Your task to perform on an android device: install app "Calculator" Image 0: 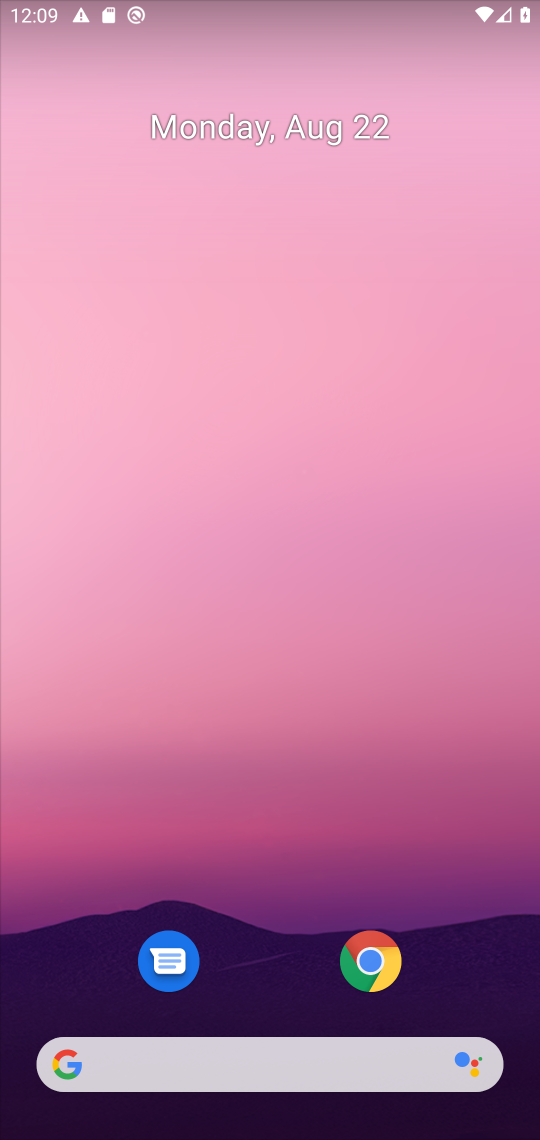
Step 0: drag from (462, 986) to (422, 132)
Your task to perform on an android device: install app "Calculator" Image 1: 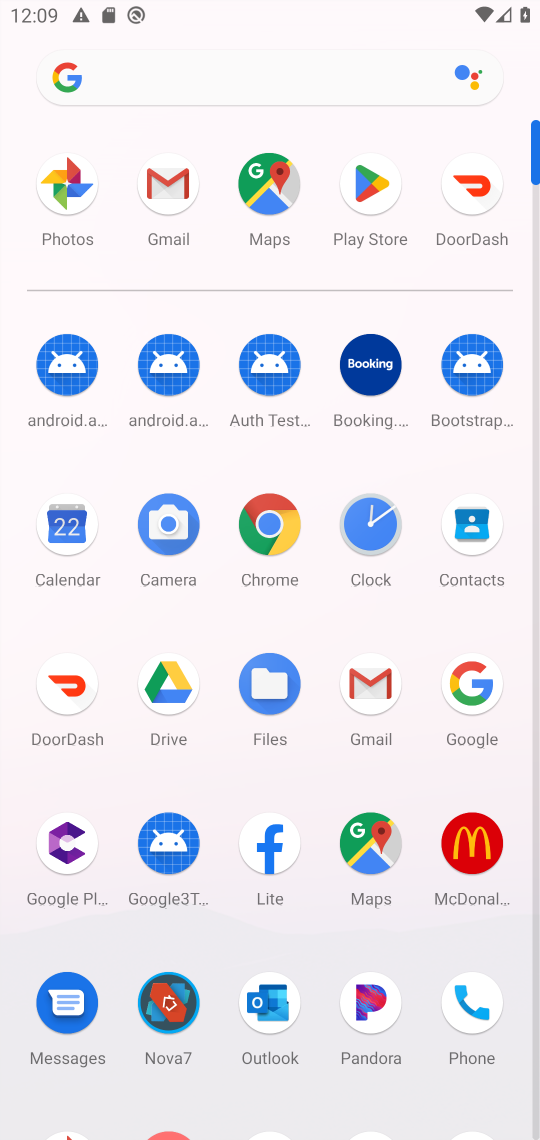
Step 1: click (353, 198)
Your task to perform on an android device: install app "Calculator" Image 2: 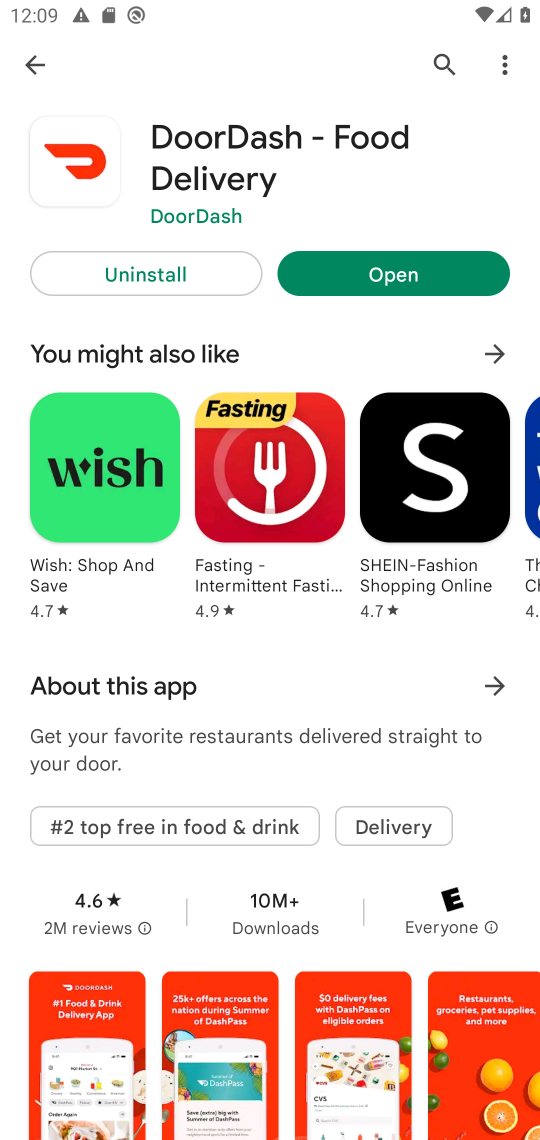
Step 2: press back button
Your task to perform on an android device: install app "Calculator" Image 3: 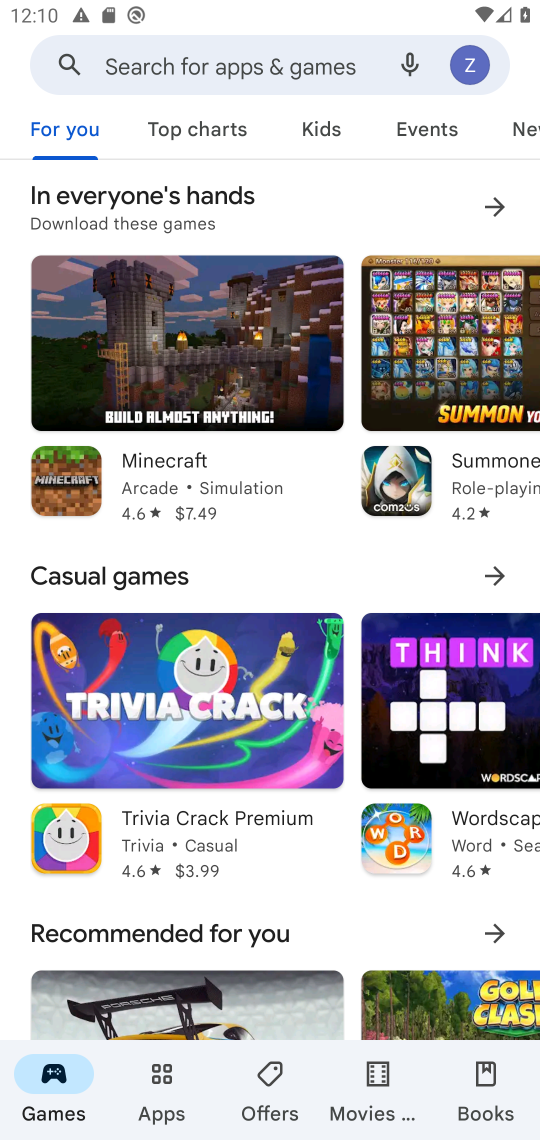
Step 3: click (202, 74)
Your task to perform on an android device: install app "Calculator" Image 4: 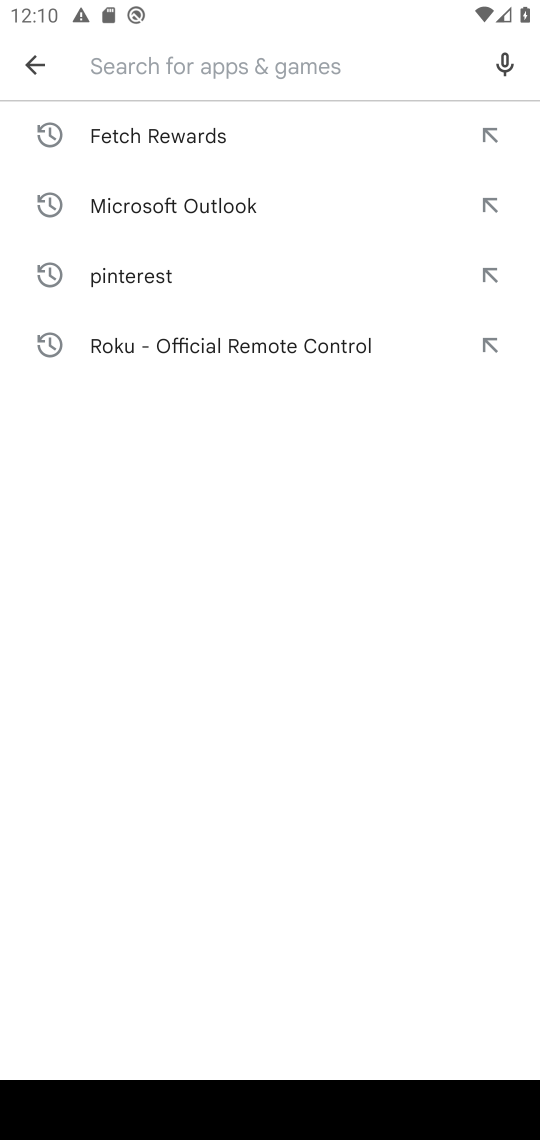
Step 4: press enter
Your task to perform on an android device: install app "Calculator" Image 5: 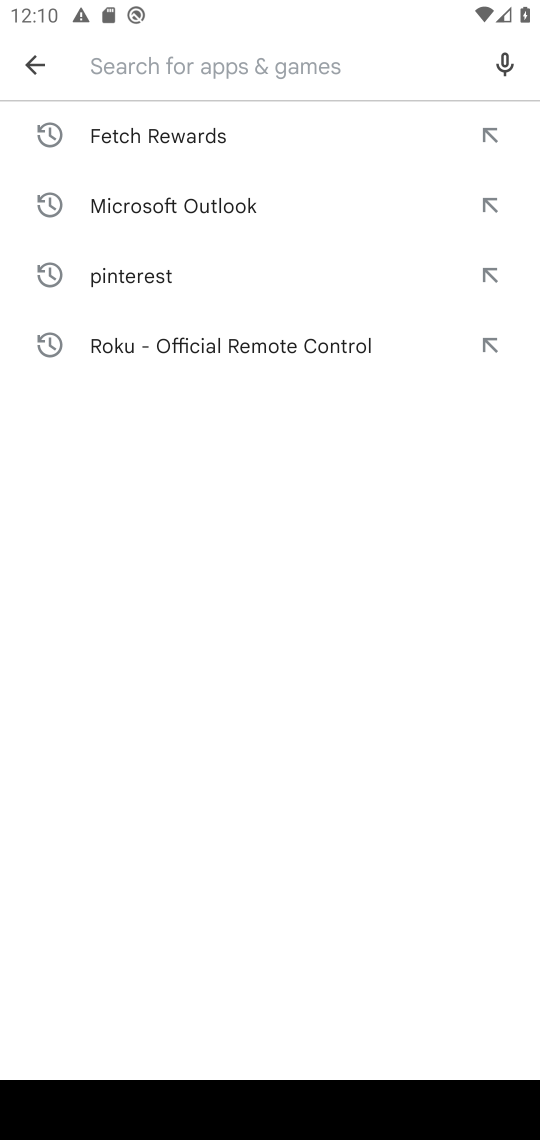
Step 5: type "calculator"
Your task to perform on an android device: install app "Calculator" Image 6: 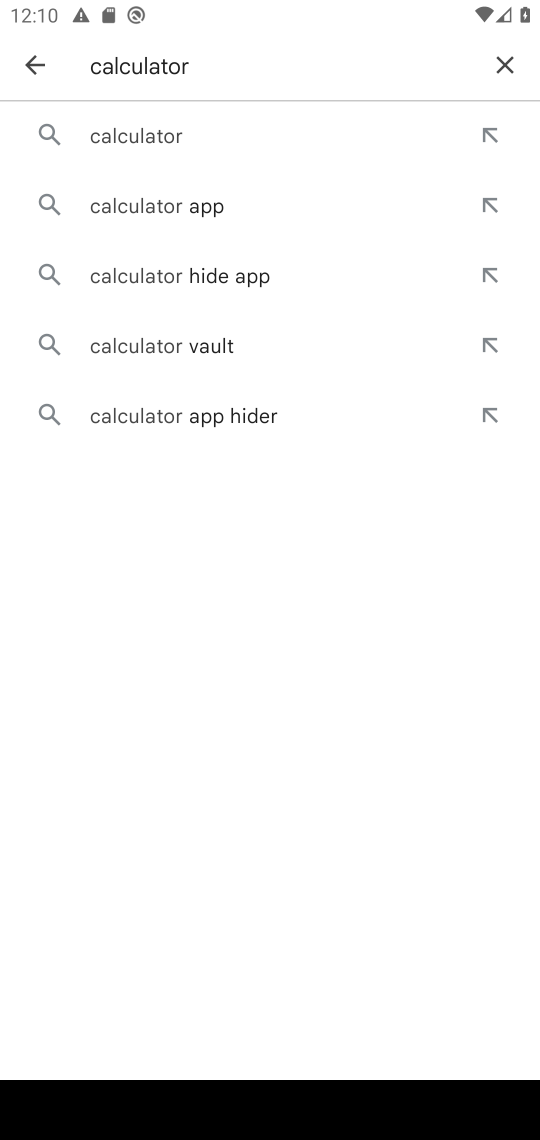
Step 6: click (175, 128)
Your task to perform on an android device: install app "Calculator" Image 7: 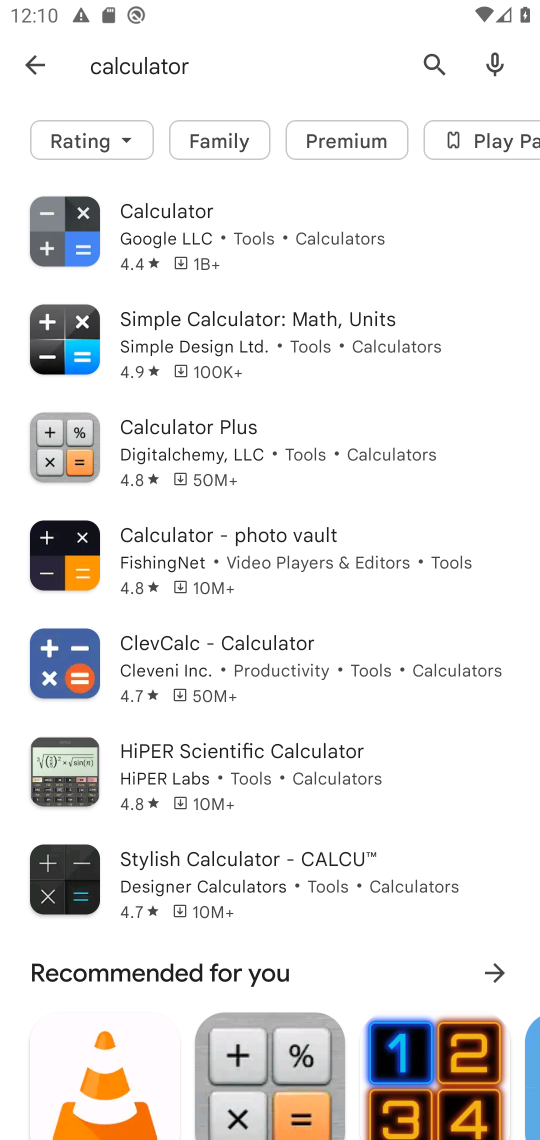
Step 7: click (190, 248)
Your task to perform on an android device: install app "Calculator" Image 8: 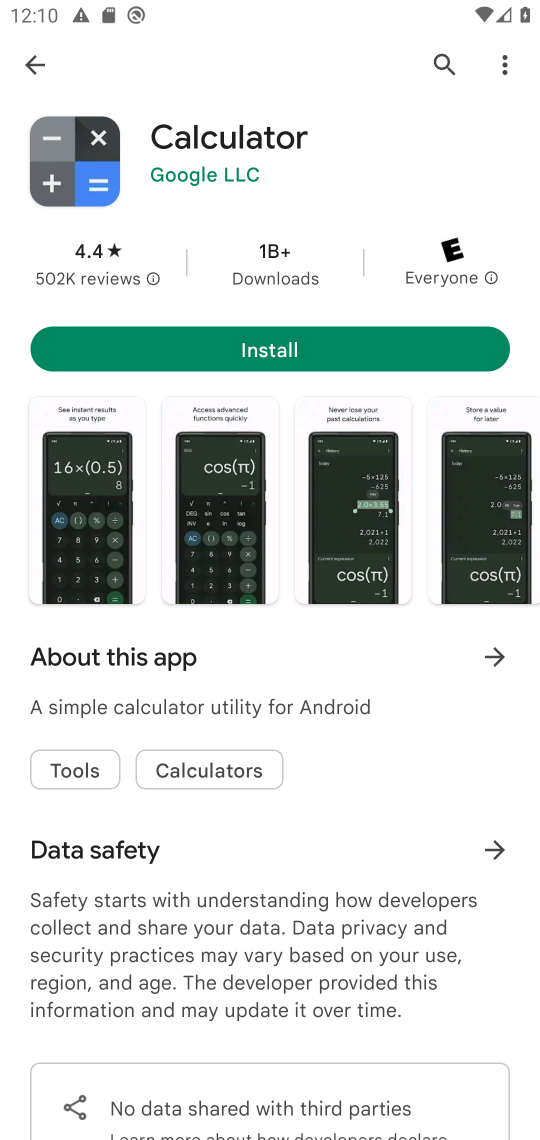
Step 8: click (236, 334)
Your task to perform on an android device: install app "Calculator" Image 9: 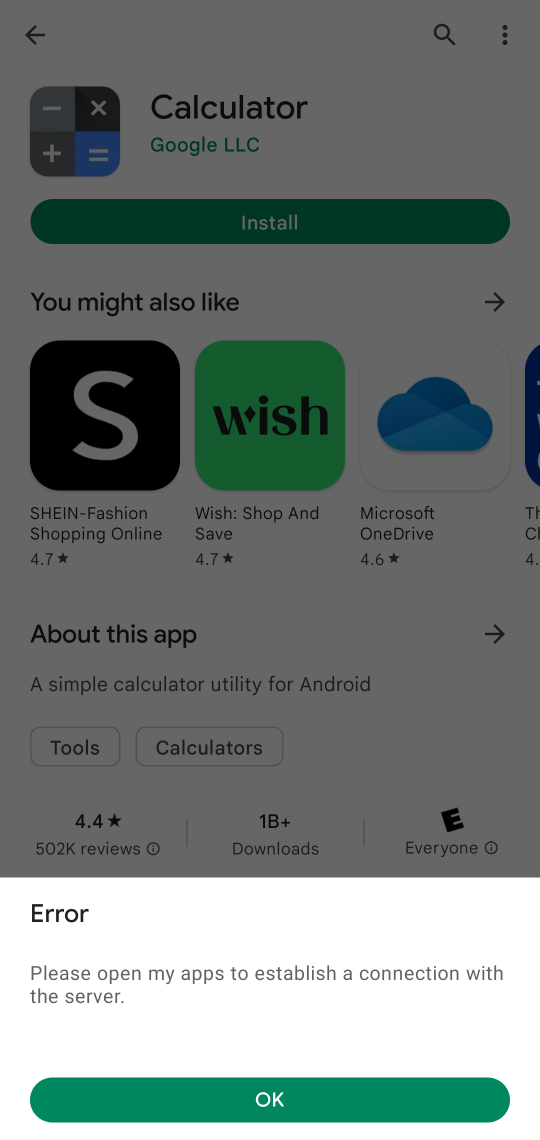
Step 9: task complete